Your task to perform on an android device: Open calendar and show me the third week of next month Image 0: 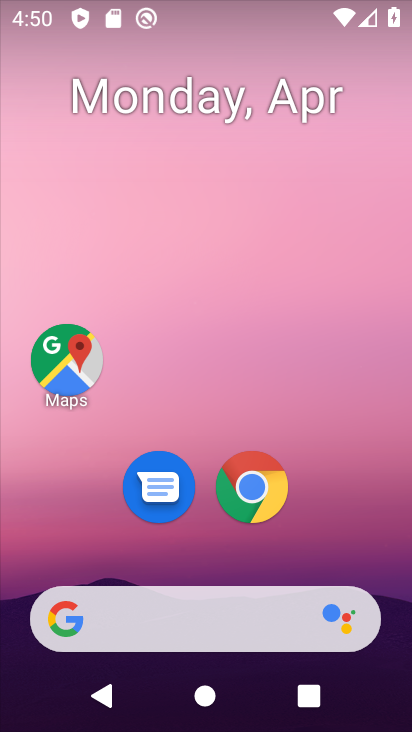
Step 0: drag from (399, 564) to (293, 190)
Your task to perform on an android device: Open calendar and show me the third week of next month Image 1: 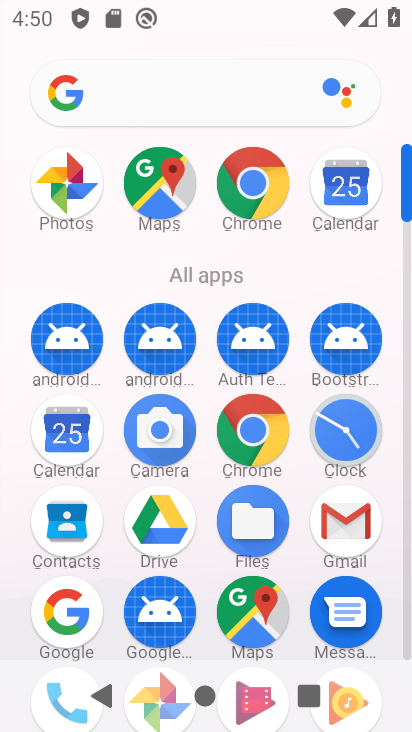
Step 1: click (79, 439)
Your task to perform on an android device: Open calendar and show me the third week of next month Image 2: 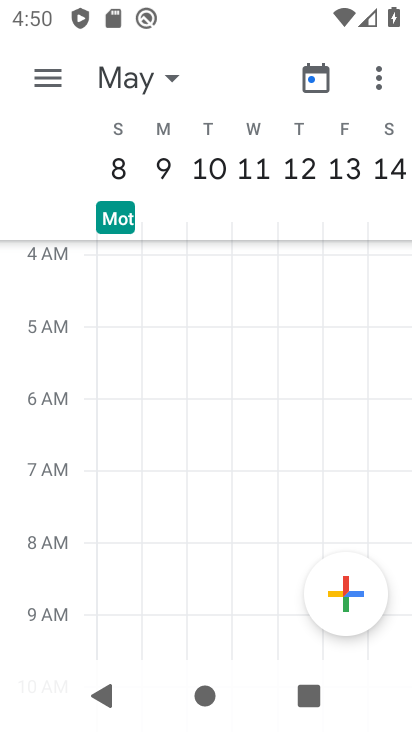
Step 2: click (168, 77)
Your task to perform on an android device: Open calendar and show me the third week of next month Image 3: 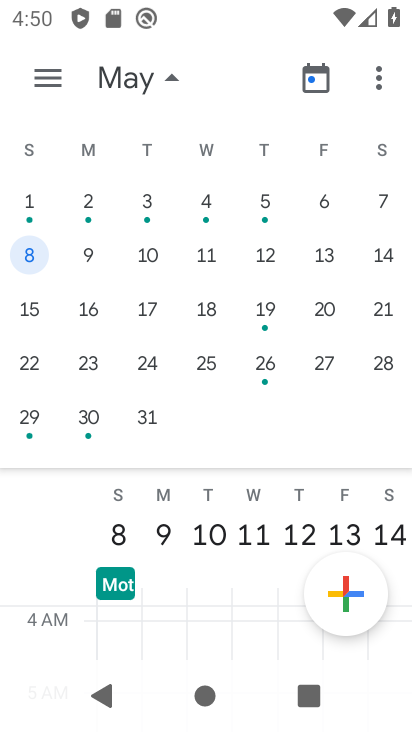
Step 3: click (205, 305)
Your task to perform on an android device: Open calendar and show me the third week of next month Image 4: 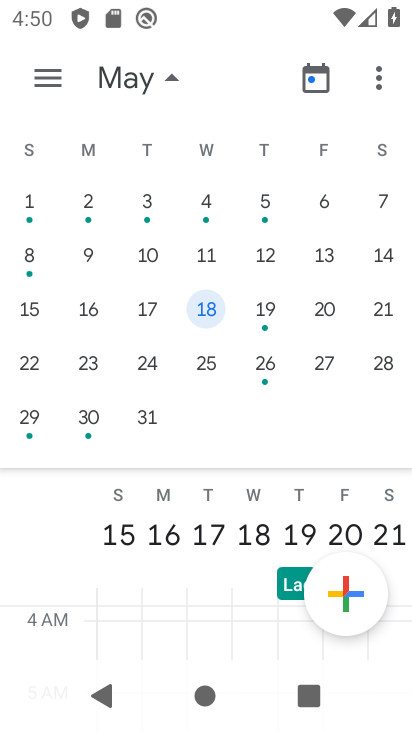
Step 4: click (150, 90)
Your task to perform on an android device: Open calendar and show me the third week of next month Image 5: 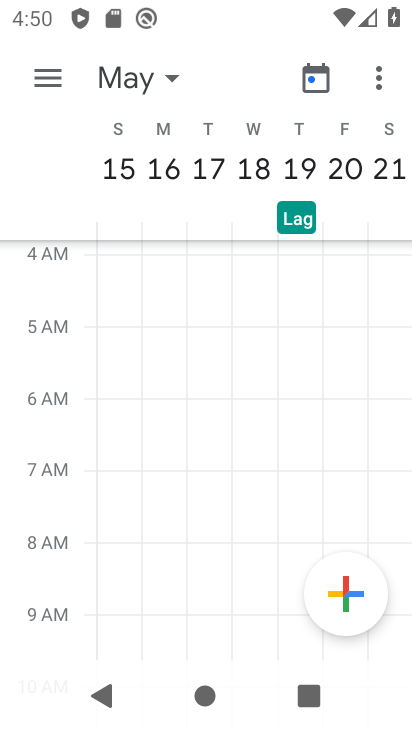
Step 5: task complete